Your task to perform on an android device: Play the last video I watched on Youtube Image 0: 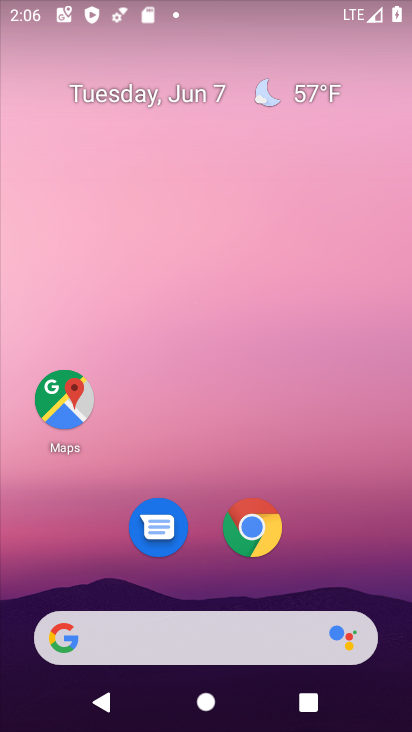
Step 0: drag from (378, 586) to (289, 184)
Your task to perform on an android device: Play the last video I watched on Youtube Image 1: 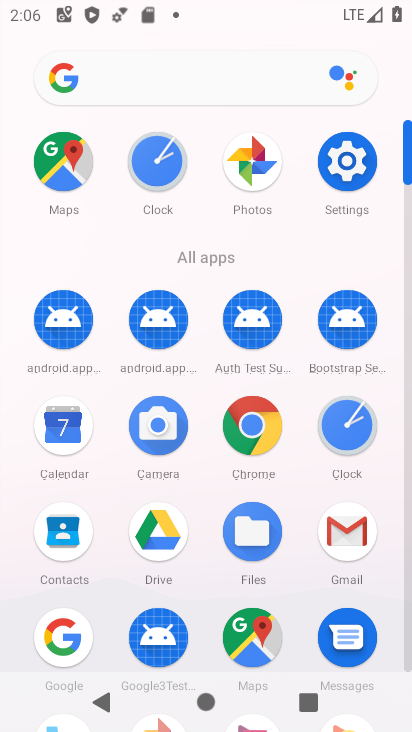
Step 1: click (409, 659)
Your task to perform on an android device: Play the last video I watched on Youtube Image 2: 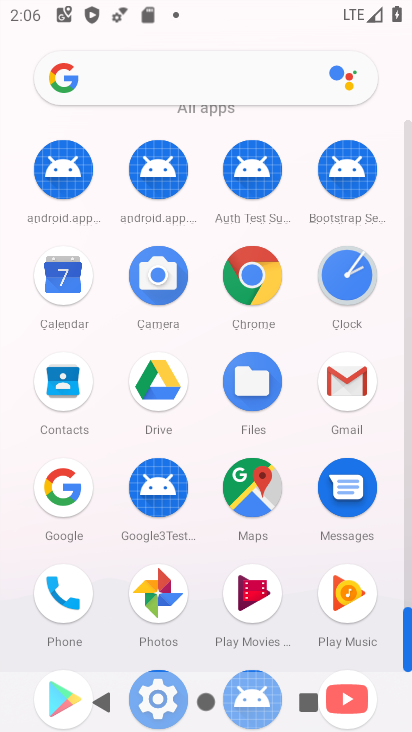
Step 2: drag from (395, 616) to (389, 432)
Your task to perform on an android device: Play the last video I watched on Youtube Image 3: 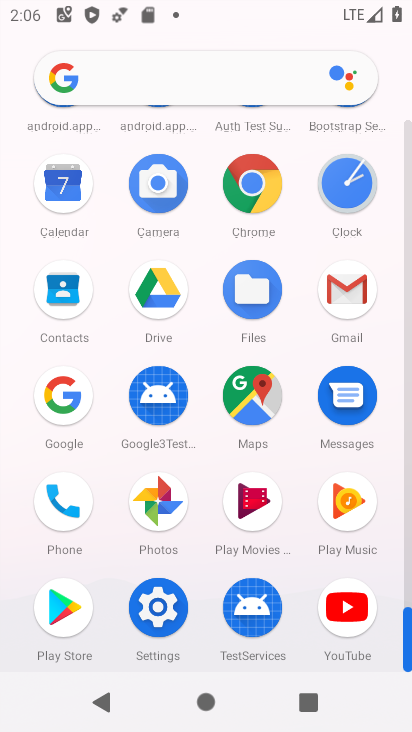
Step 3: click (359, 616)
Your task to perform on an android device: Play the last video I watched on Youtube Image 4: 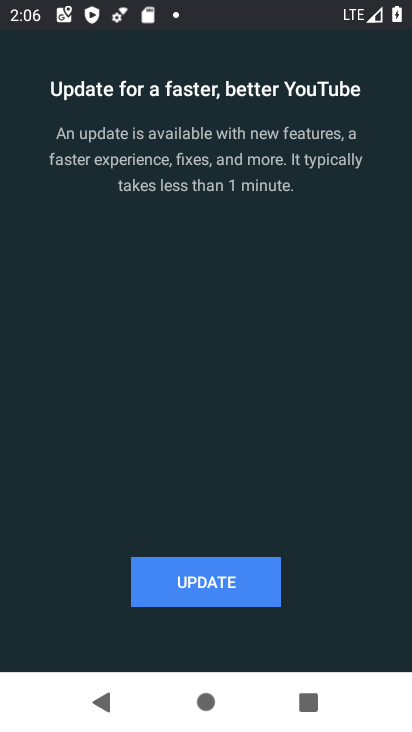
Step 4: click (240, 591)
Your task to perform on an android device: Play the last video I watched on Youtube Image 5: 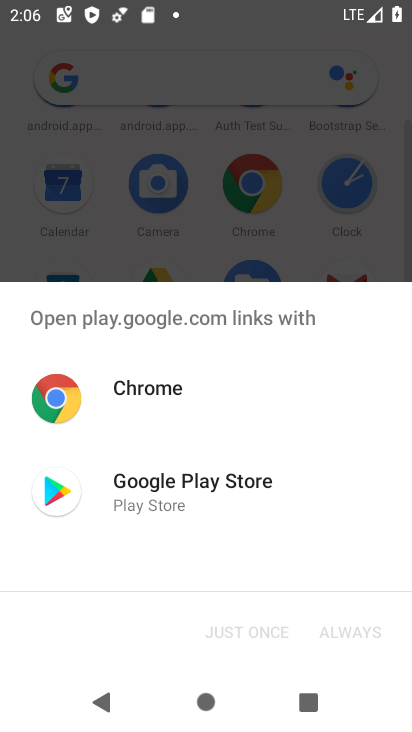
Step 5: click (260, 514)
Your task to perform on an android device: Play the last video I watched on Youtube Image 6: 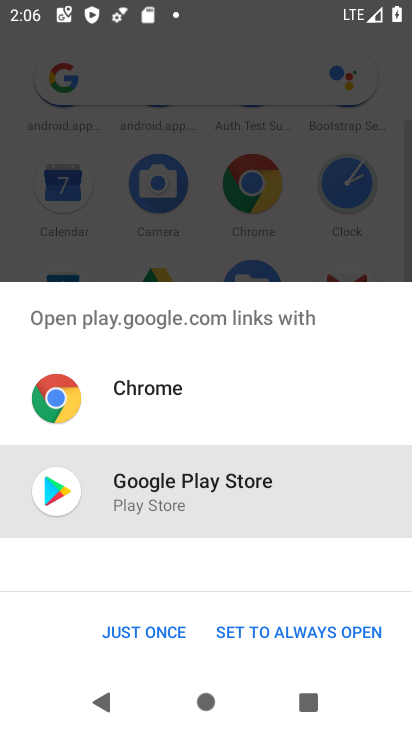
Step 6: click (164, 629)
Your task to perform on an android device: Play the last video I watched on Youtube Image 7: 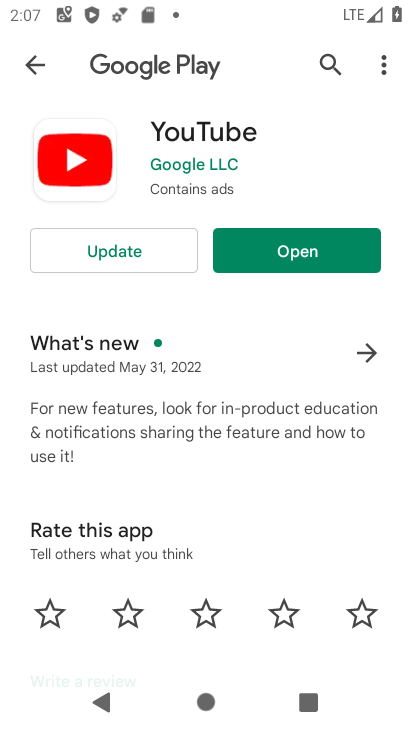
Step 7: click (120, 257)
Your task to perform on an android device: Play the last video I watched on Youtube Image 8: 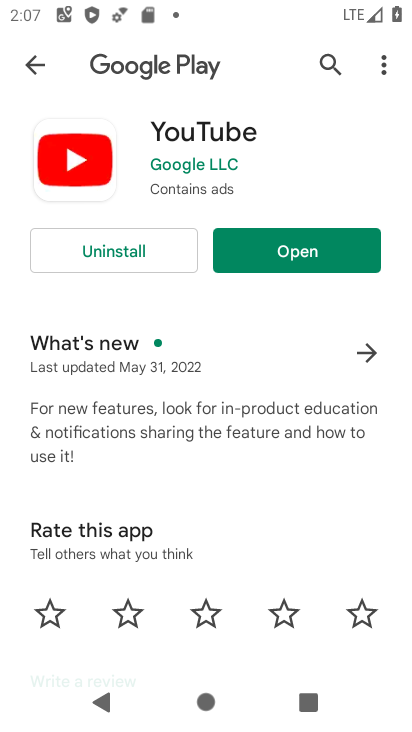
Step 8: click (314, 257)
Your task to perform on an android device: Play the last video I watched on Youtube Image 9: 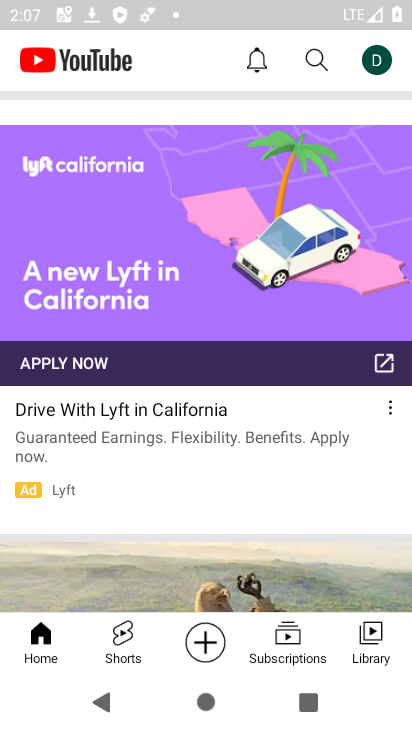
Step 9: click (373, 630)
Your task to perform on an android device: Play the last video I watched on Youtube Image 10: 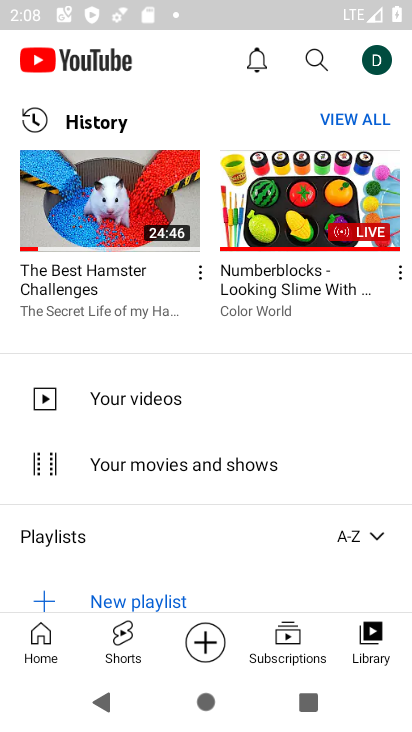
Step 10: click (113, 196)
Your task to perform on an android device: Play the last video I watched on Youtube Image 11: 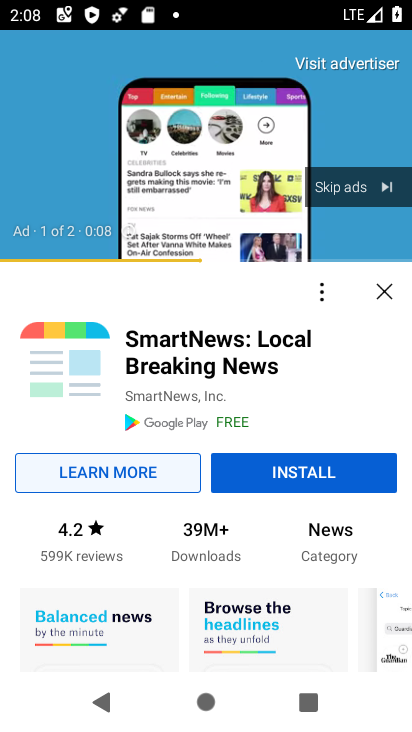
Step 11: task complete